Your task to perform on an android device: turn on wifi Image 0: 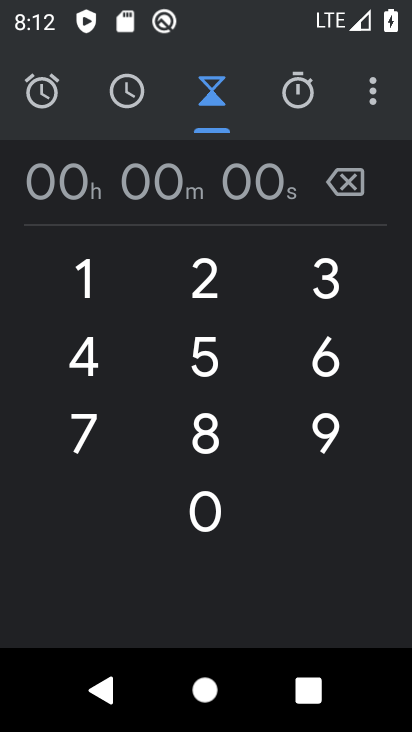
Step 0: press home button
Your task to perform on an android device: turn on wifi Image 1: 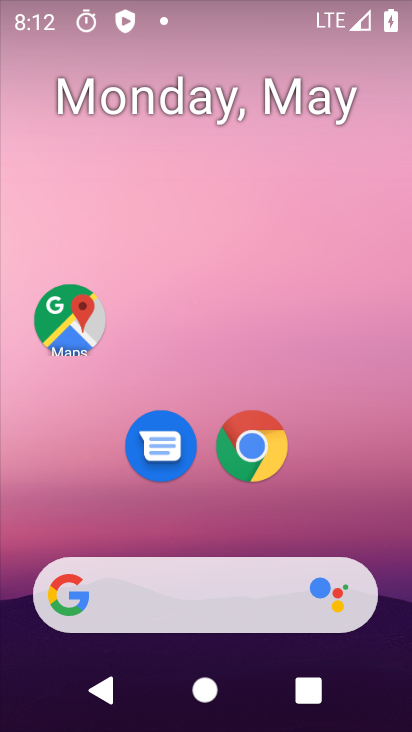
Step 1: drag from (349, 527) to (336, 21)
Your task to perform on an android device: turn on wifi Image 2: 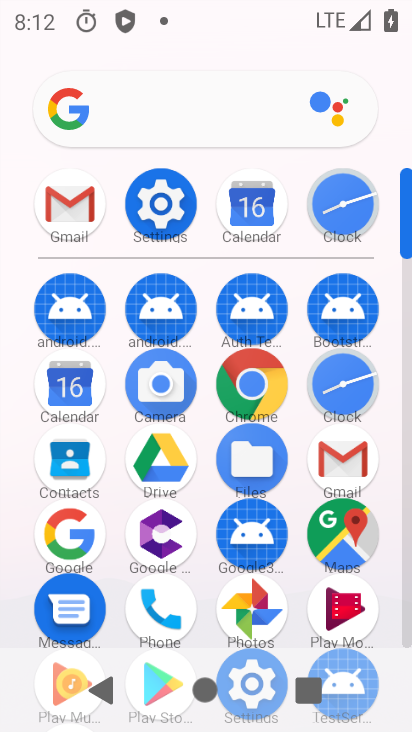
Step 2: click (152, 193)
Your task to perform on an android device: turn on wifi Image 3: 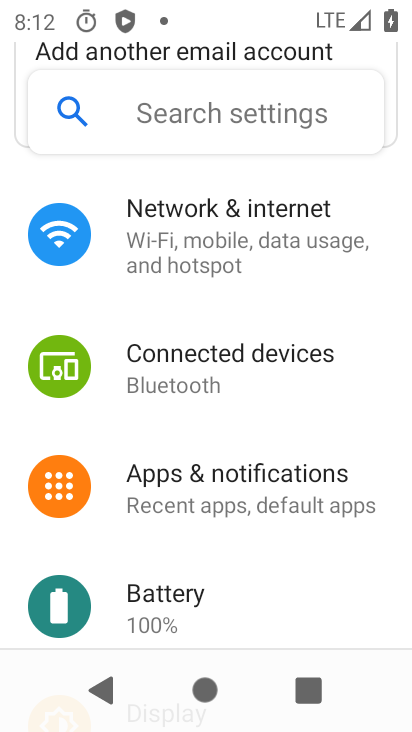
Step 3: click (153, 228)
Your task to perform on an android device: turn on wifi Image 4: 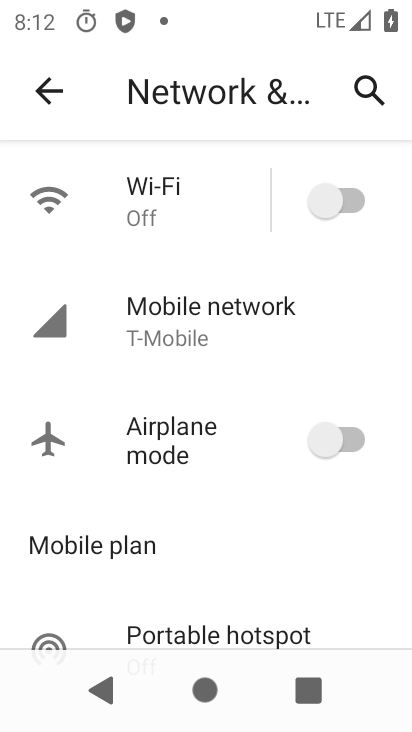
Step 4: click (321, 203)
Your task to perform on an android device: turn on wifi Image 5: 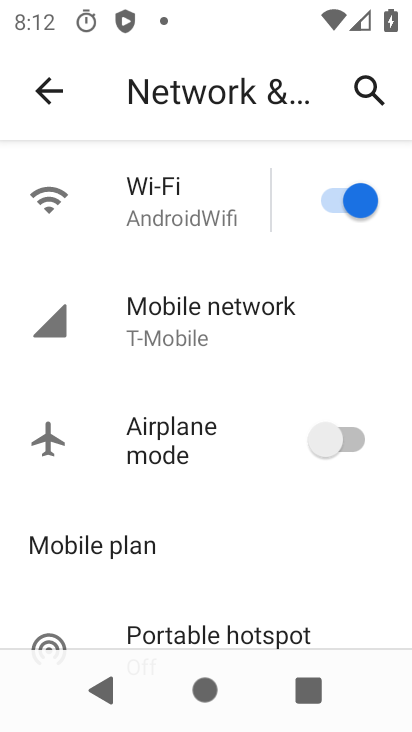
Step 5: task complete